Your task to perform on an android device: Open settings Image 0: 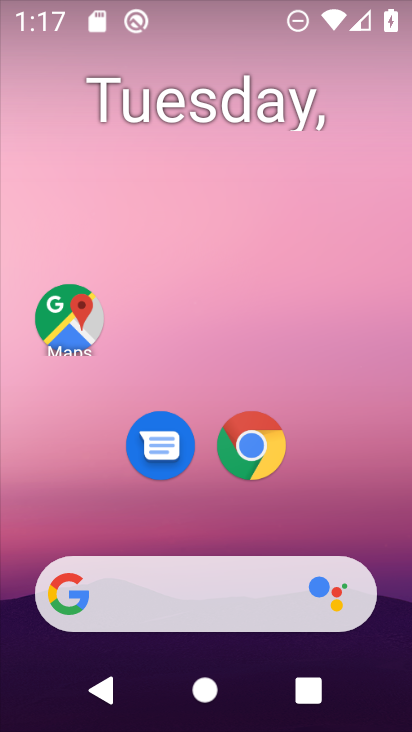
Step 0: drag from (290, 527) to (327, 179)
Your task to perform on an android device: Open settings Image 1: 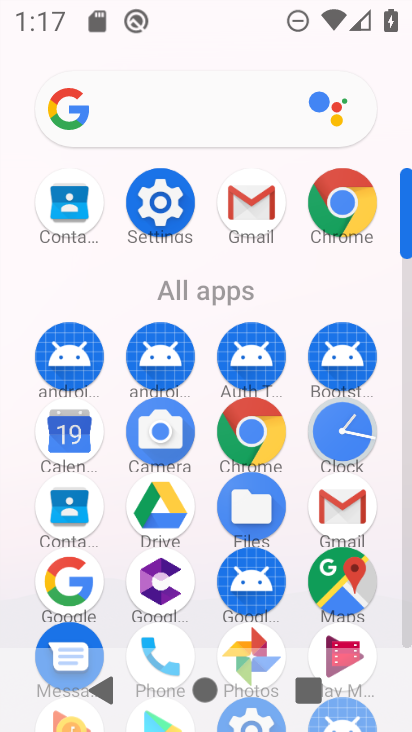
Step 1: click (156, 216)
Your task to perform on an android device: Open settings Image 2: 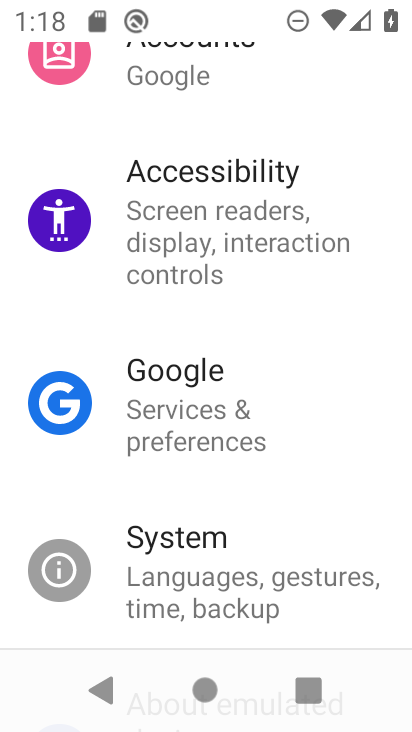
Step 2: task complete